Your task to perform on an android device: Open Google Maps Image 0: 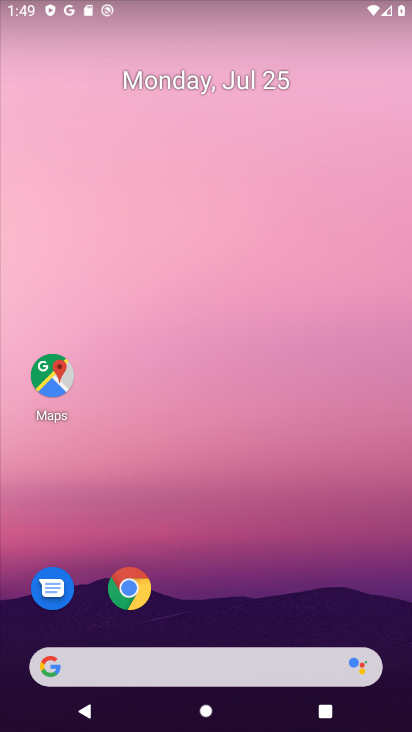
Step 0: click (52, 367)
Your task to perform on an android device: Open Google Maps Image 1: 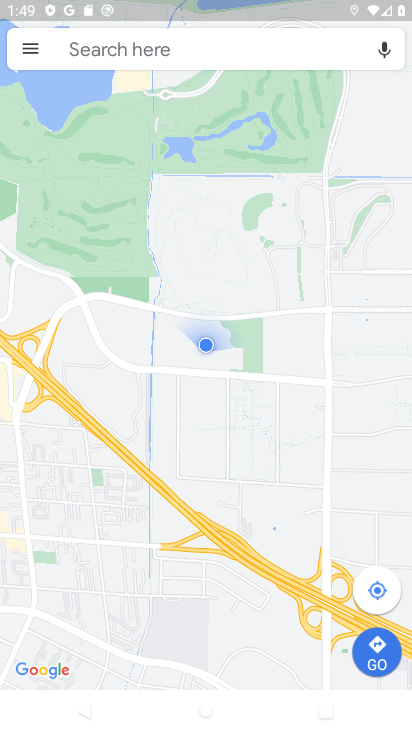
Step 1: task complete